Your task to perform on an android device: Open display settings Image 0: 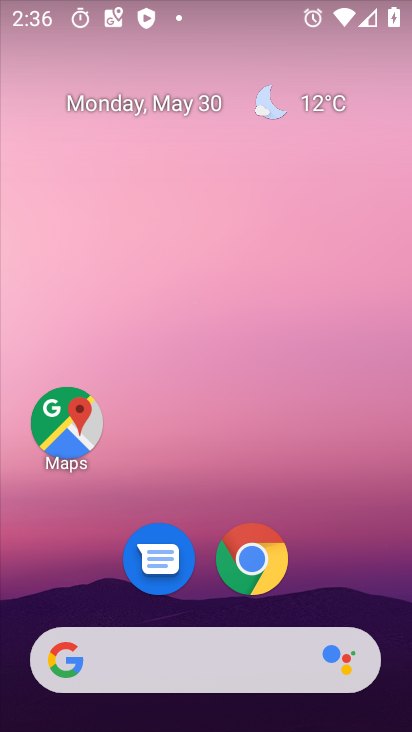
Step 0: drag from (217, 604) to (243, 164)
Your task to perform on an android device: Open display settings Image 1: 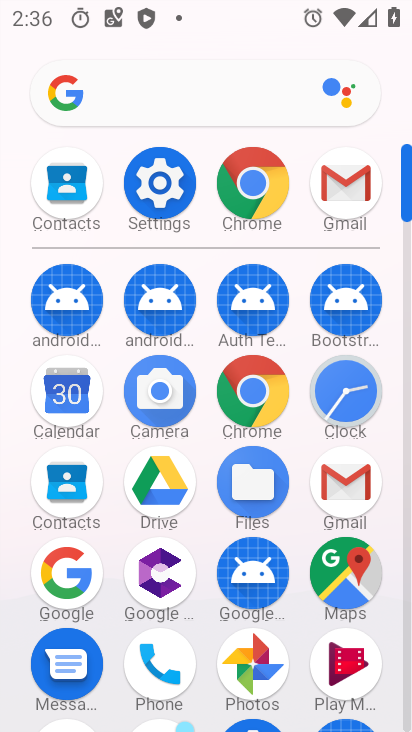
Step 1: click (164, 170)
Your task to perform on an android device: Open display settings Image 2: 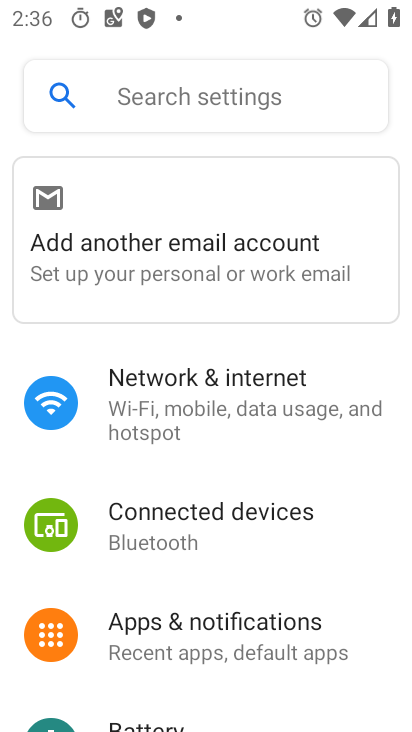
Step 2: drag from (181, 686) to (299, 186)
Your task to perform on an android device: Open display settings Image 3: 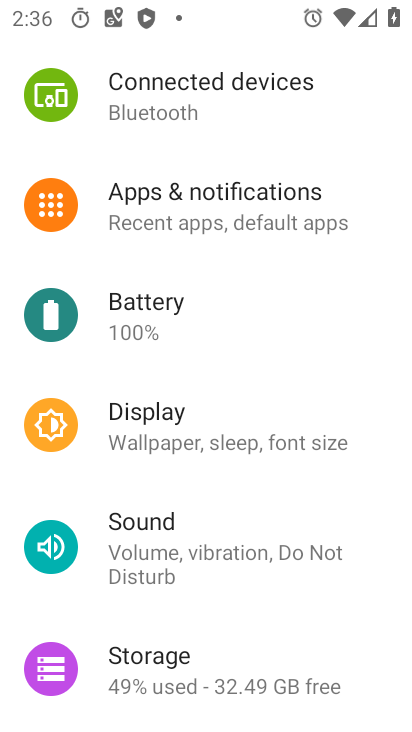
Step 3: click (177, 424)
Your task to perform on an android device: Open display settings Image 4: 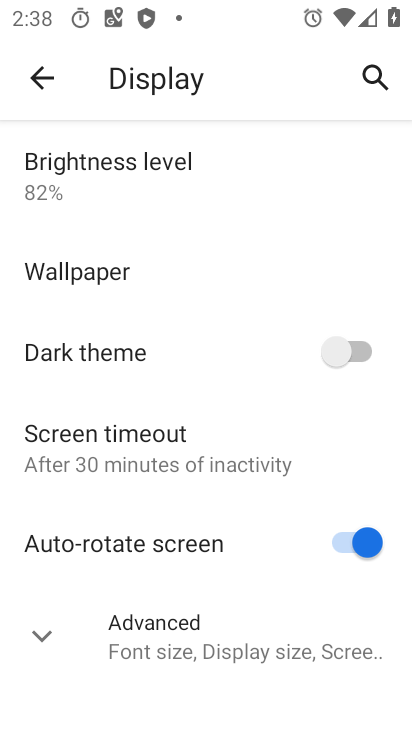
Step 4: task complete